Your task to perform on an android device: Check the news Image 0: 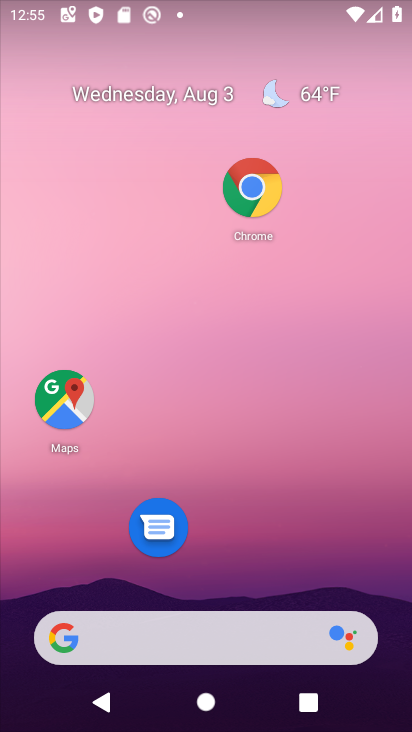
Step 0: drag from (238, 551) to (249, 121)
Your task to perform on an android device: Check the news Image 1: 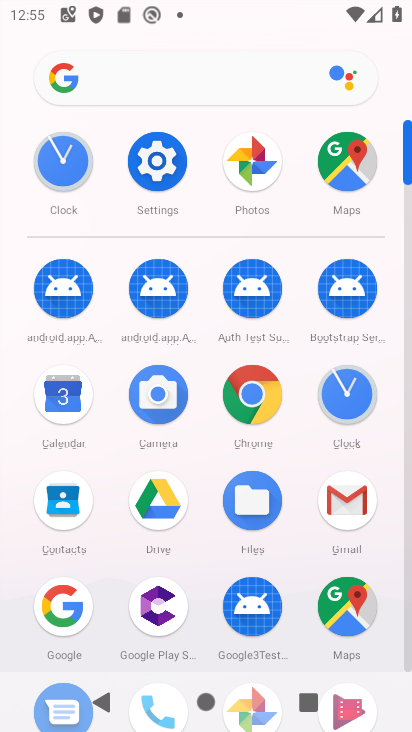
Step 1: click (207, 67)
Your task to perform on an android device: Check the news Image 2: 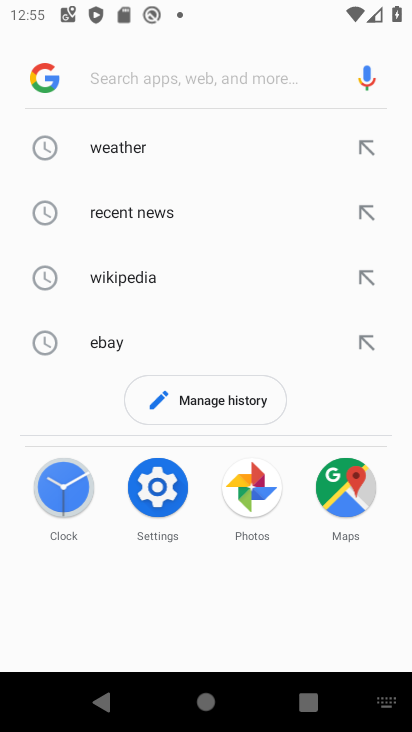
Step 2: type "news"
Your task to perform on an android device: Check the news Image 3: 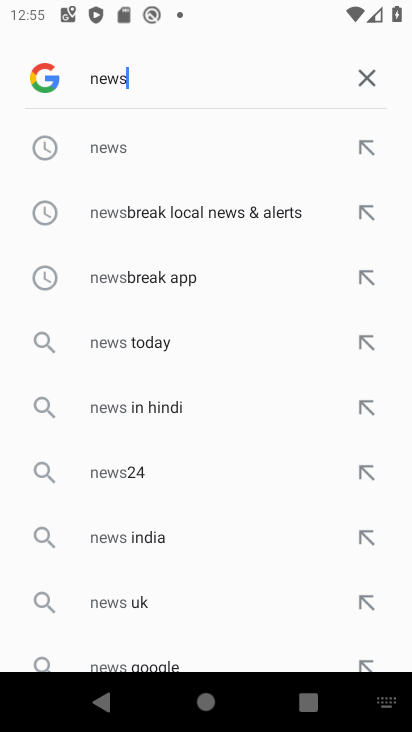
Step 3: click (142, 138)
Your task to perform on an android device: Check the news Image 4: 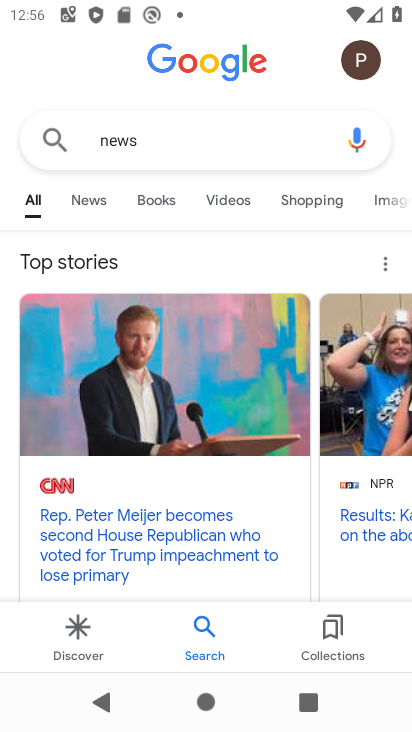
Step 4: task complete